Your task to perform on an android device: Open Android settings Image 0: 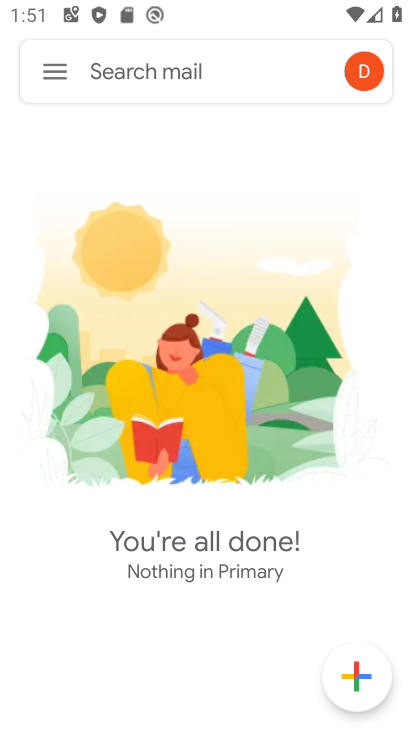
Step 0: press home button
Your task to perform on an android device: Open Android settings Image 1: 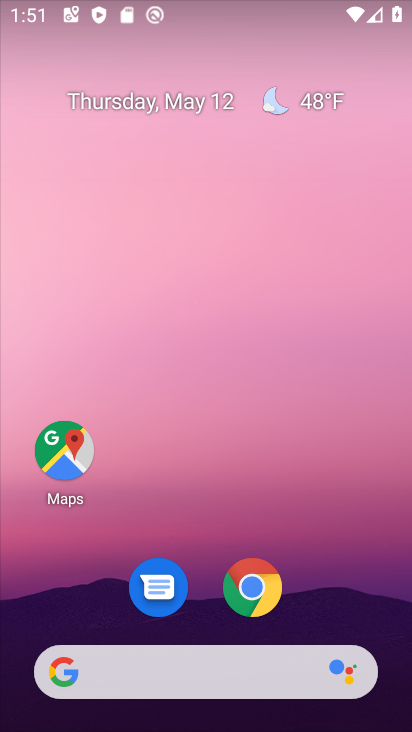
Step 1: drag from (218, 565) to (218, 146)
Your task to perform on an android device: Open Android settings Image 2: 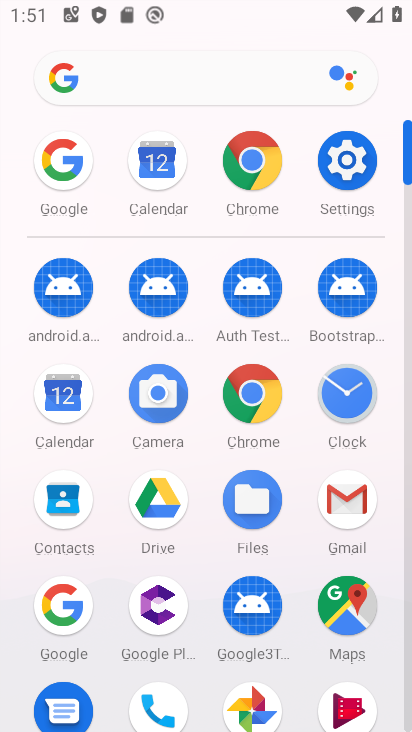
Step 2: click (330, 193)
Your task to perform on an android device: Open Android settings Image 3: 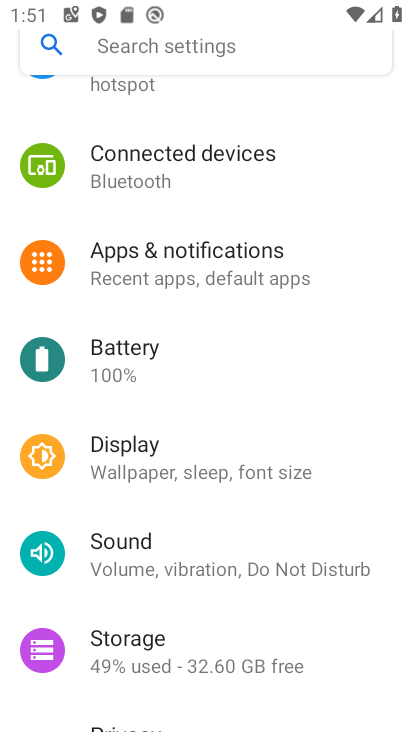
Step 3: drag from (209, 362) to (196, 586)
Your task to perform on an android device: Open Android settings Image 4: 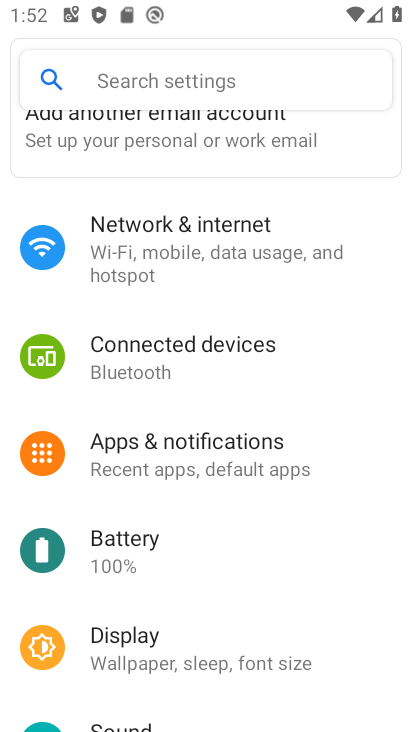
Step 4: drag from (184, 536) to (232, 214)
Your task to perform on an android device: Open Android settings Image 5: 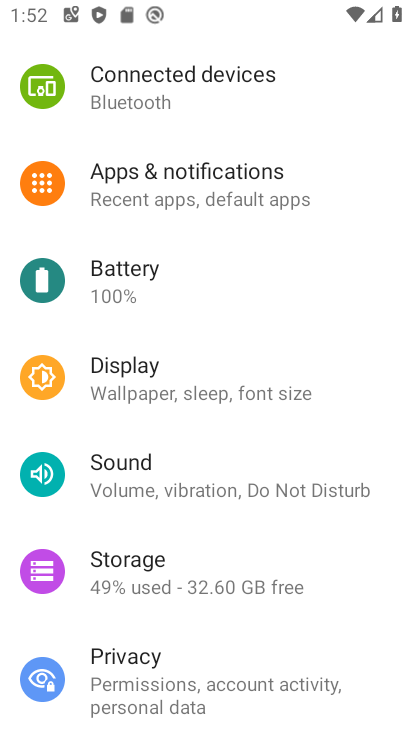
Step 5: drag from (174, 592) to (205, 240)
Your task to perform on an android device: Open Android settings Image 6: 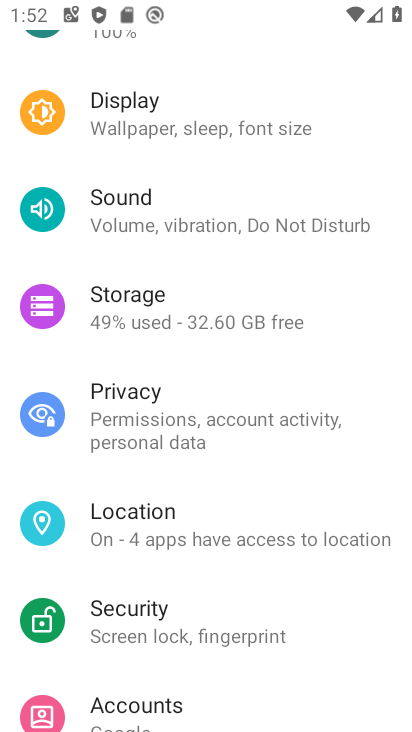
Step 6: drag from (180, 624) to (201, 312)
Your task to perform on an android device: Open Android settings Image 7: 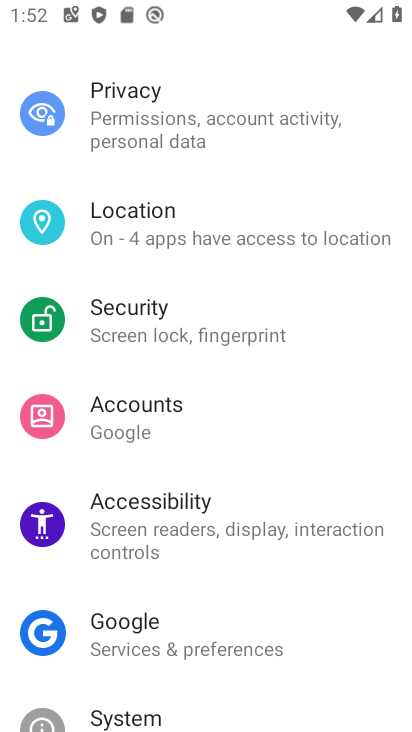
Step 7: drag from (181, 588) to (205, 283)
Your task to perform on an android device: Open Android settings Image 8: 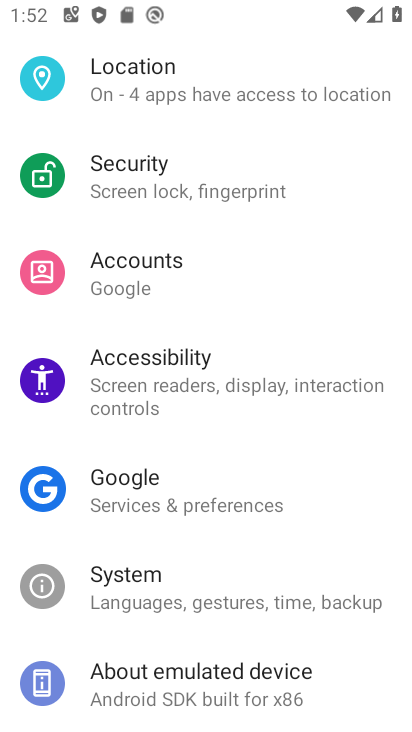
Step 8: drag from (174, 565) to (191, 366)
Your task to perform on an android device: Open Android settings Image 9: 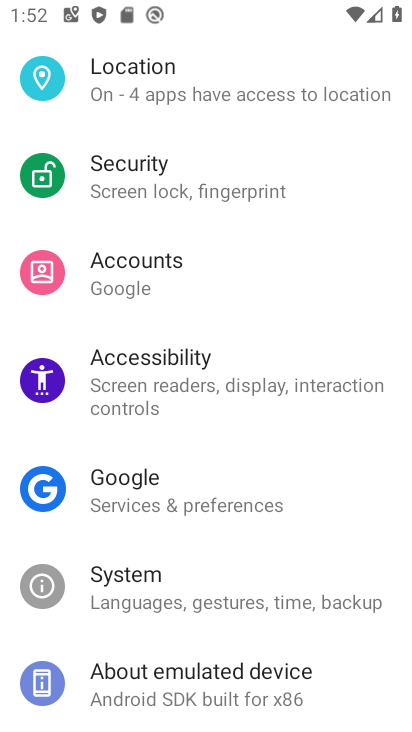
Step 9: click (226, 685)
Your task to perform on an android device: Open Android settings Image 10: 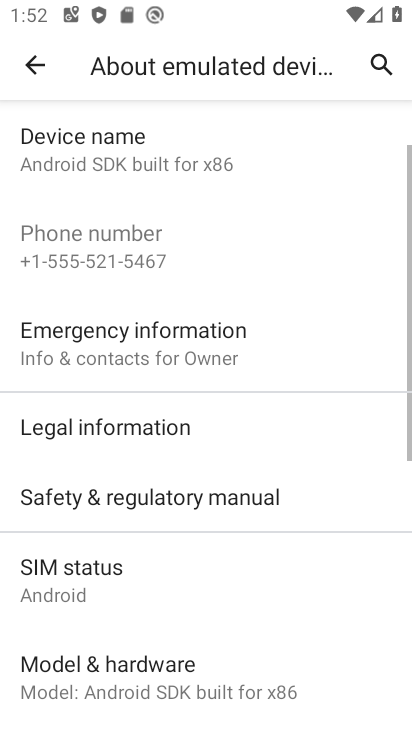
Step 10: drag from (204, 605) to (204, 459)
Your task to perform on an android device: Open Android settings Image 11: 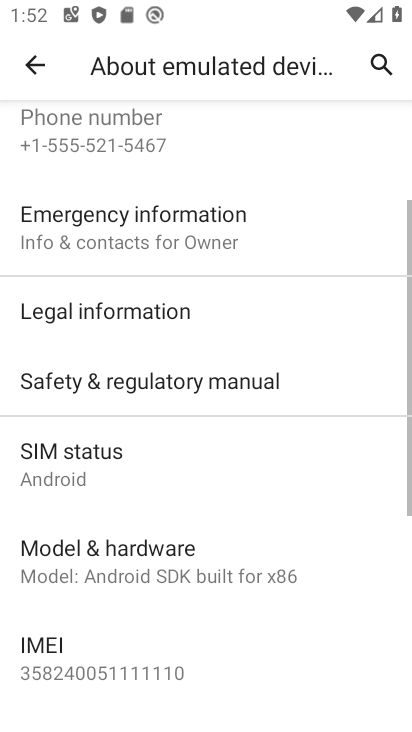
Step 11: drag from (136, 555) to (166, 255)
Your task to perform on an android device: Open Android settings Image 12: 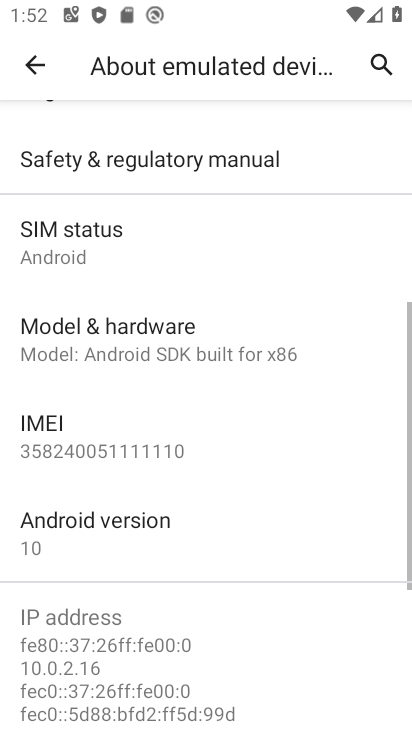
Step 12: click (141, 545)
Your task to perform on an android device: Open Android settings Image 13: 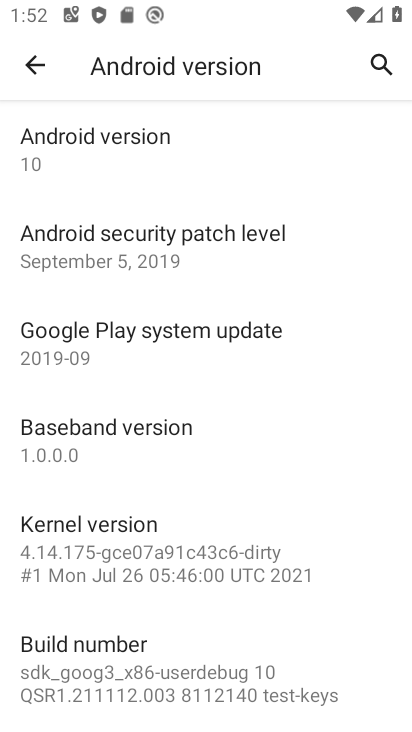
Step 13: task complete